Your task to perform on an android device: Search for Mexican restaurants on Maps Image 0: 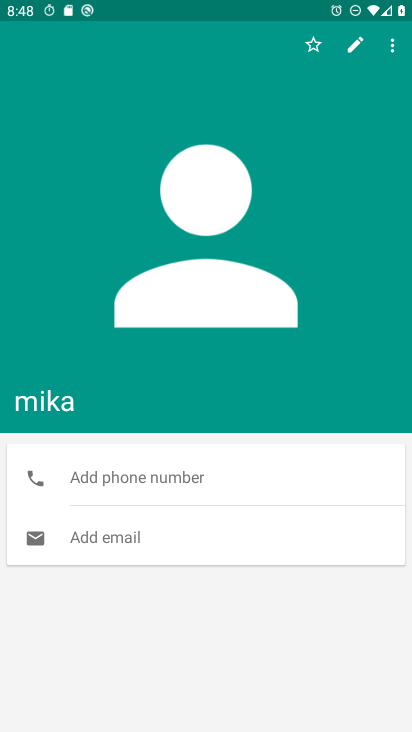
Step 0: press home button
Your task to perform on an android device: Search for Mexican restaurants on Maps Image 1: 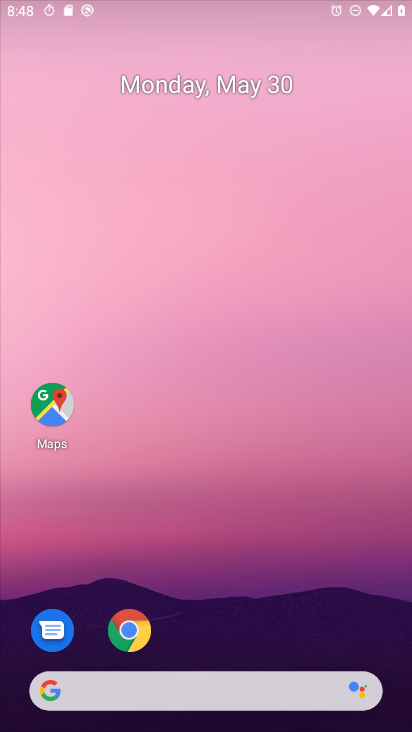
Step 1: drag from (345, 445) to (307, 38)
Your task to perform on an android device: Search for Mexican restaurants on Maps Image 2: 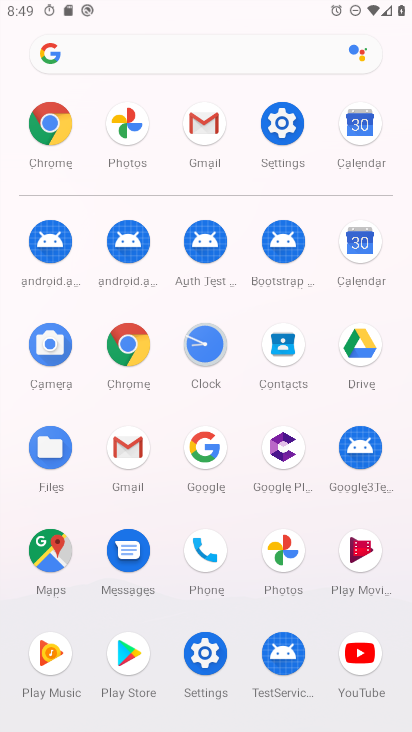
Step 2: click (58, 559)
Your task to perform on an android device: Search for Mexican restaurants on Maps Image 3: 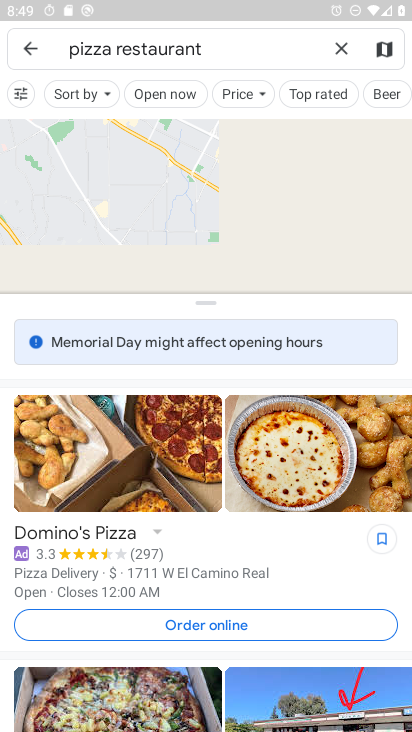
Step 3: click (340, 46)
Your task to perform on an android device: Search for Mexican restaurants on Maps Image 4: 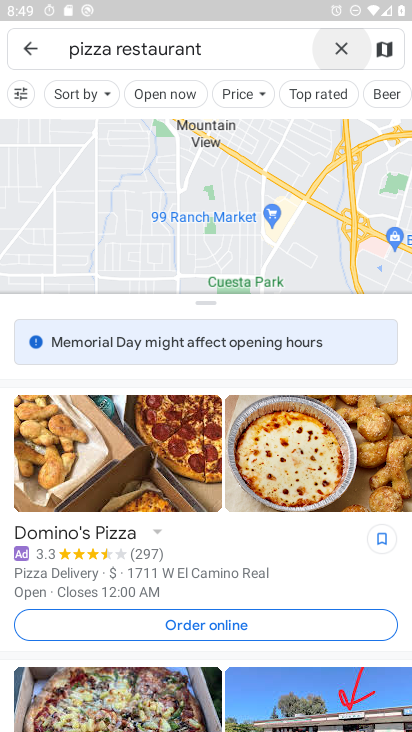
Step 4: click (251, 61)
Your task to perform on an android device: Search for Mexican restaurants on Maps Image 5: 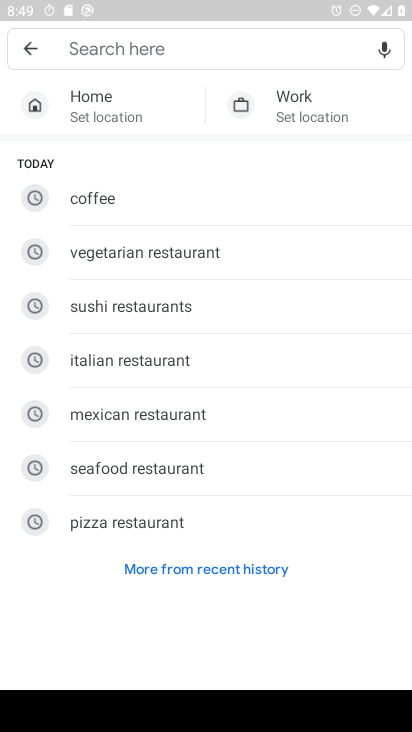
Step 5: click (142, 416)
Your task to perform on an android device: Search for Mexican restaurants on Maps Image 6: 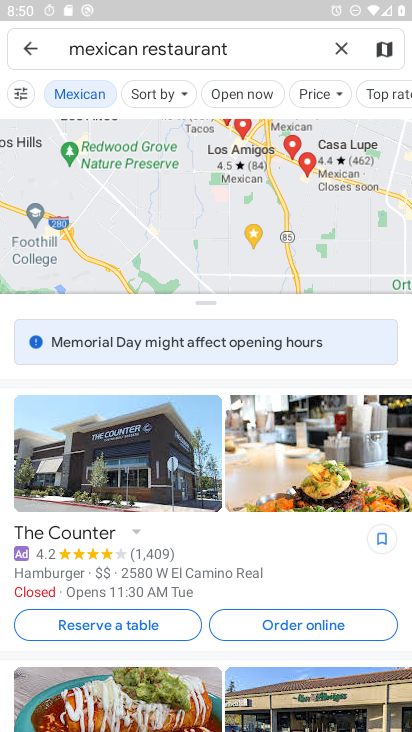
Step 6: task complete